Your task to perform on an android device: see tabs open on other devices in the chrome app Image 0: 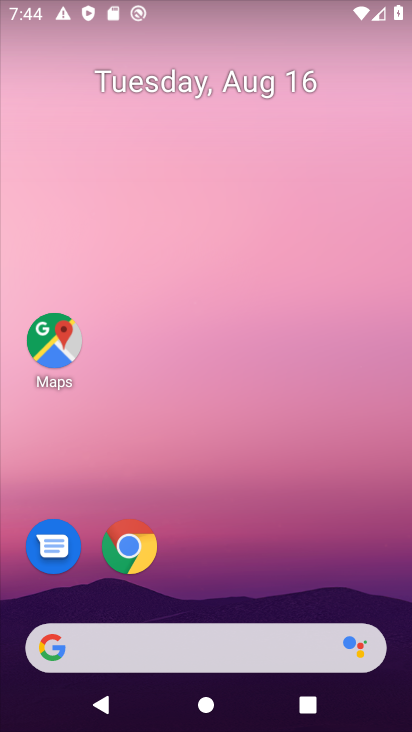
Step 0: drag from (240, 558) to (242, 428)
Your task to perform on an android device: see tabs open on other devices in the chrome app Image 1: 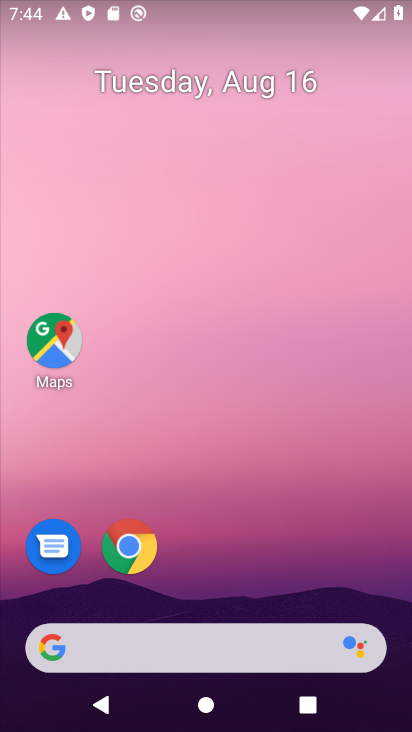
Step 1: click (131, 544)
Your task to perform on an android device: see tabs open on other devices in the chrome app Image 2: 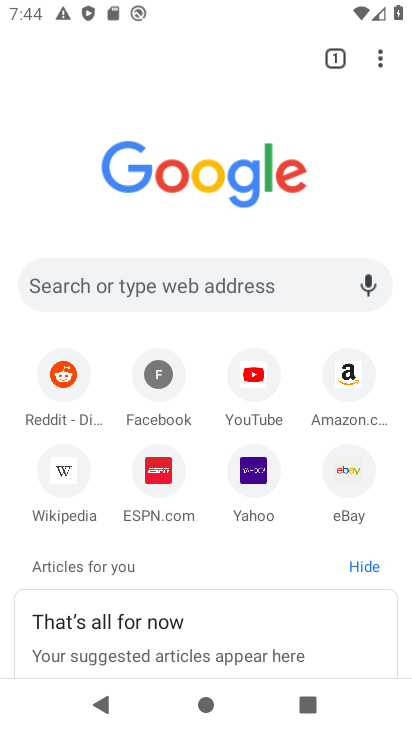
Step 2: click (377, 60)
Your task to perform on an android device: see tabs open on other devices in the chrome app Image 3: 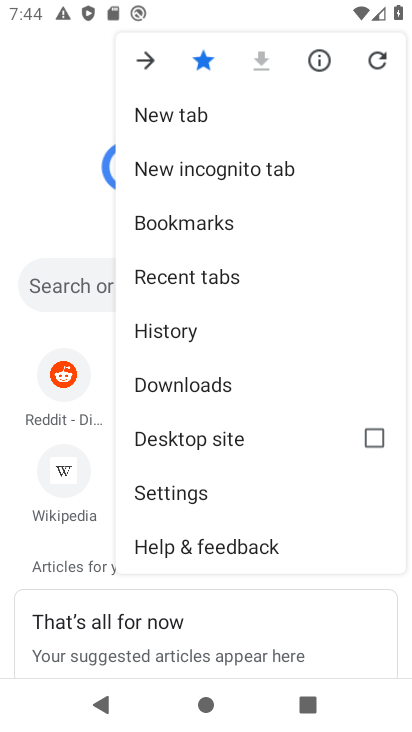
Step 3: click (193, 274)
Your task to perform on an android device: see tabs open on other devices in the chrome app Image 4: 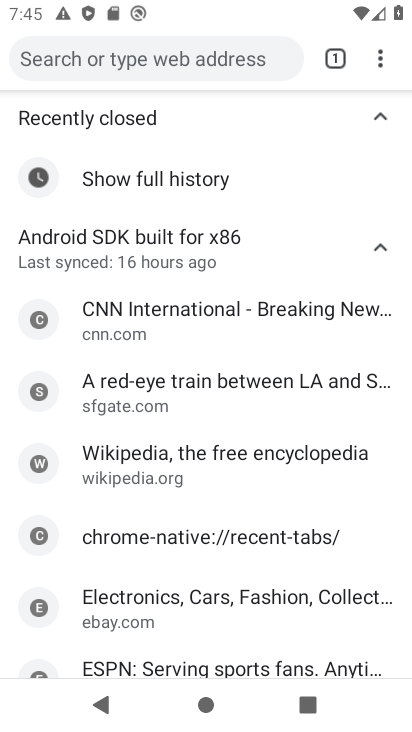
Step 4: task complete